Your task to perform on an android device: change the clock display to analog Image 0: 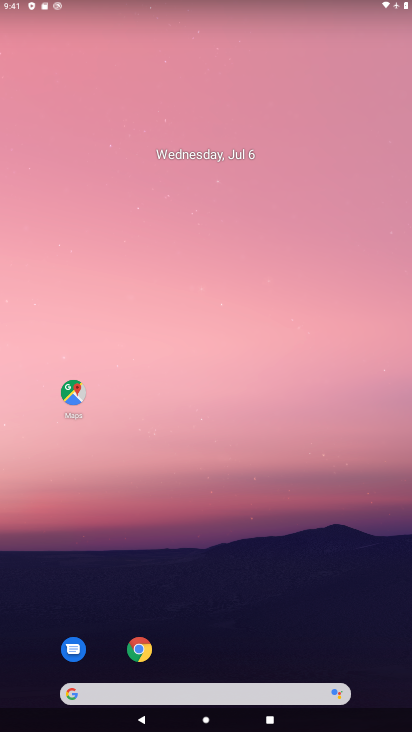
Step 0: drag from (379, 551) to (361, 36)
Your task to perform on an android device: change the clock display to analog Image 1: 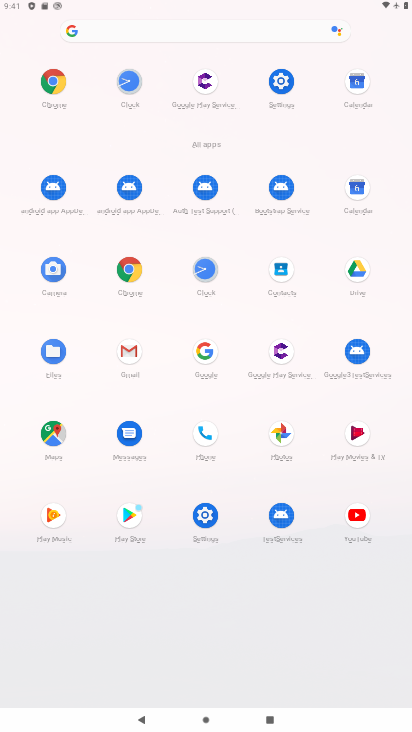
Step 1: click (205, 269)
Your task to perform on an android device: change the clock display to analog Image 2: 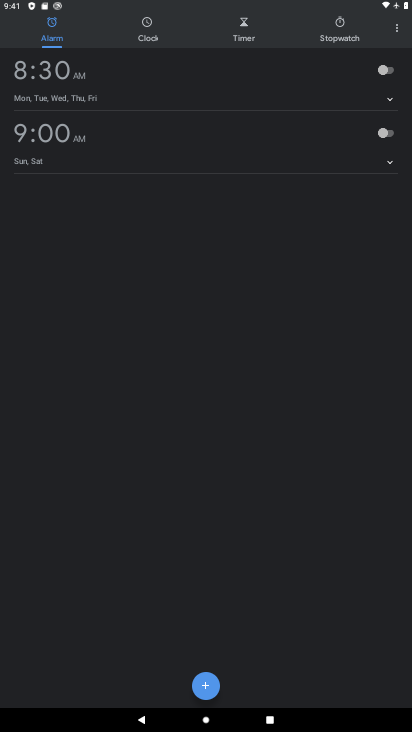
Step 2: click (394, 26)
Your task to perform on an android device: change the clock display to analog Image 3: 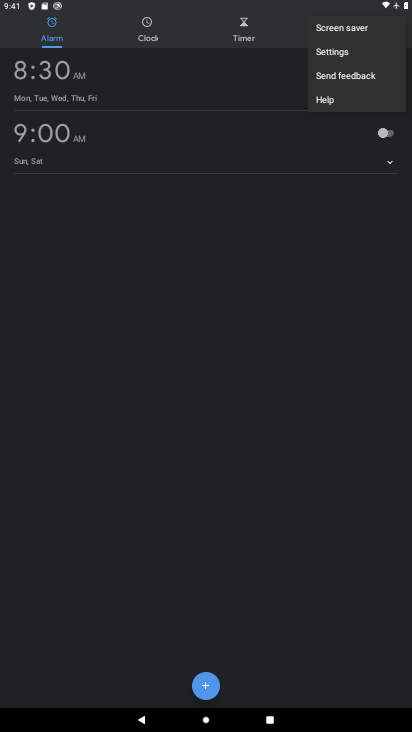
Step 3: click (344, 51)
Your task to perform on an android device: change the clock display to analog Image 4: 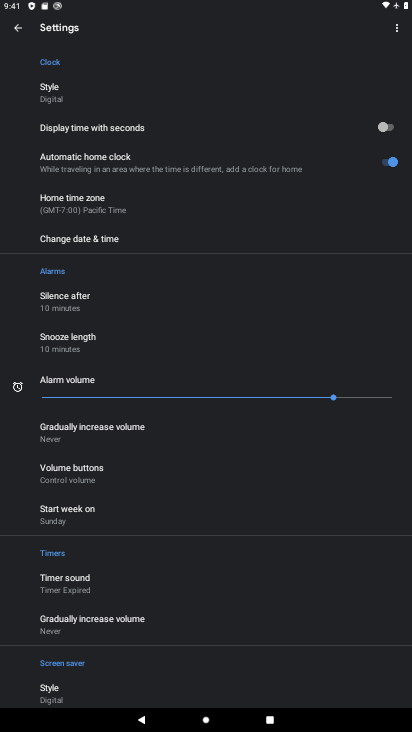
Step 4: click (52, 89)
Your task to perform on an android device: change the clock display to analog Image 5: 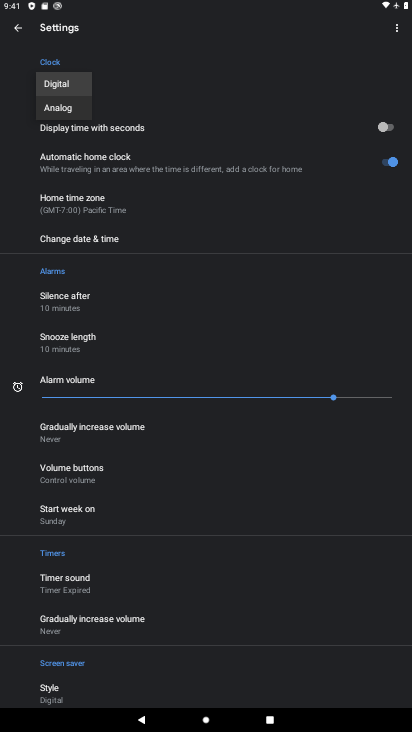
Step 5: click (48, 105)
Your task to perform on an android device: change the clock display to analog Image 6: 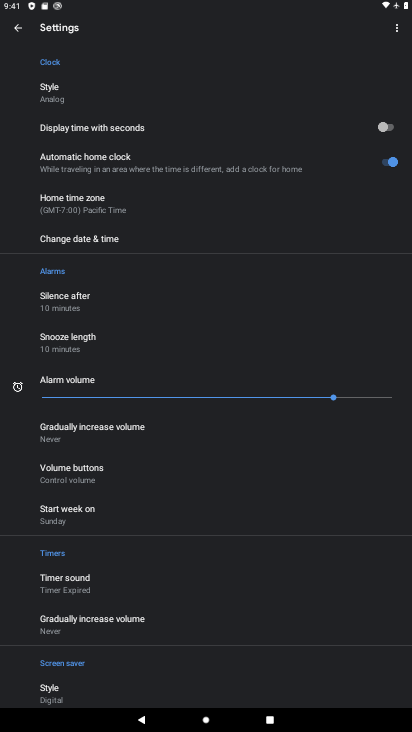
Step 6: task complete